Your task to perform on an android device: Search for seafood restaurants on Google Maps Image 0: 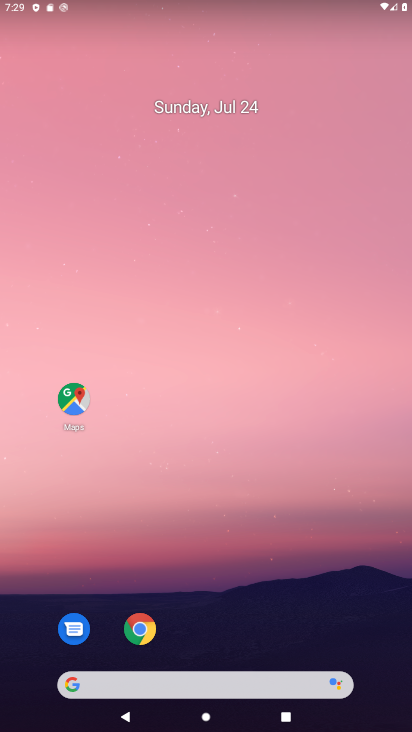
Step 0: drag from (356, 628) to (380, 85)
Your task to perform on an android device: Search for seafood restaurants on Google Maps Image 1: 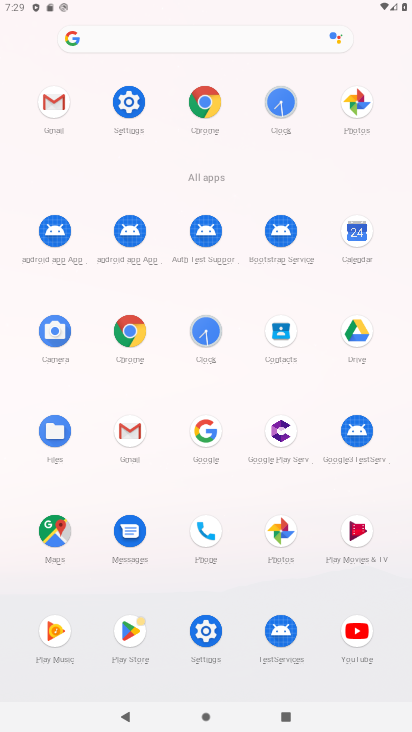
Step 1: click (52, 536)
Your task to perform on an android device: Search for seafood restaurants on Google Maps Image 2: 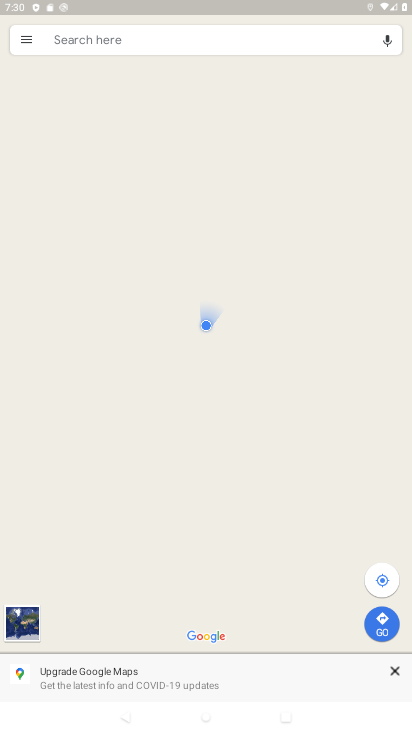
Step 2: click (106, 37)
Your task to perform on an android device: Search for seafood restaurants on Google Maps Image 3: 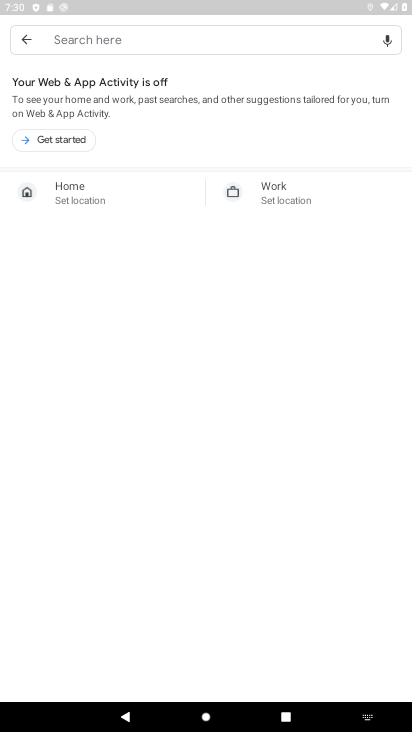
Step 3: type "seafood restaurants"
Your task to perform on an android device: Search for seafood restaurants on Google Maps Image 4: 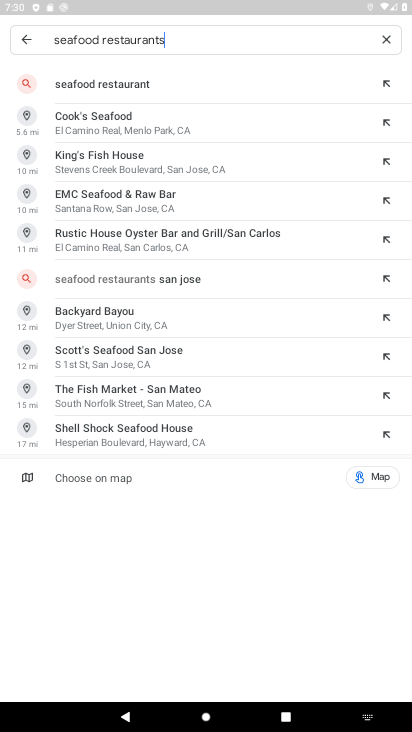
Step 4: click (247, 91)
Your task to perform on an android device: Search for seafood restaurants on Google Maps Image 5: 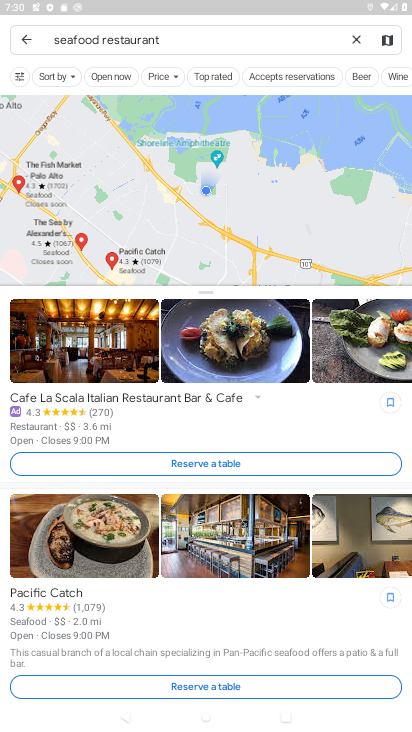
Step 5: task complete